Your task to perform on an android device: Is it going to rain this weekend? Image 0: 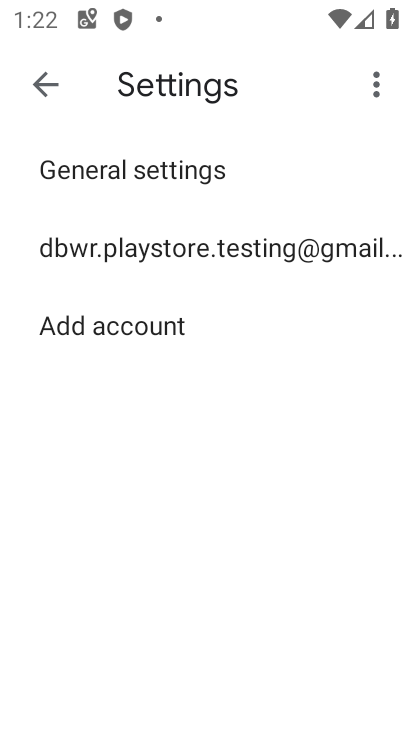
Step 0: press home button
Your task to perform on an android device: Is it going to rain this weekend? Image 1: 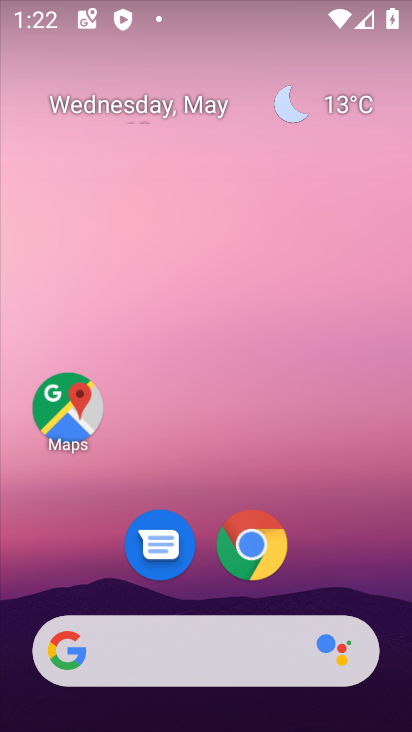
Step 1: click (330, 103)
Your task to perform on an android device: Is it going to rain this weekend? Image 2: 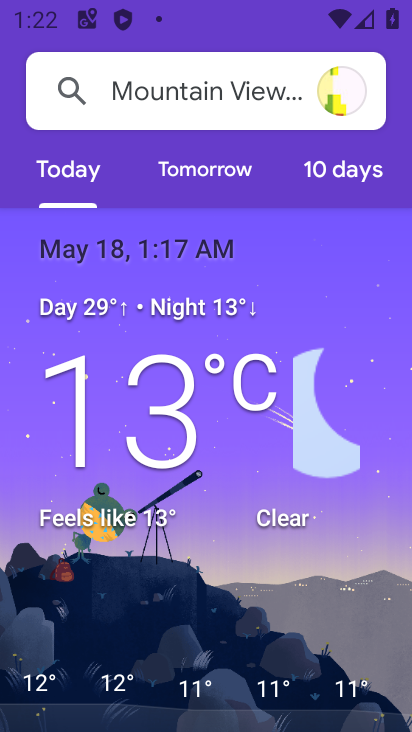
Step 2: click (317, 162)
Your task to perform on an android device: Is it going to rain this weekend? Image 3: 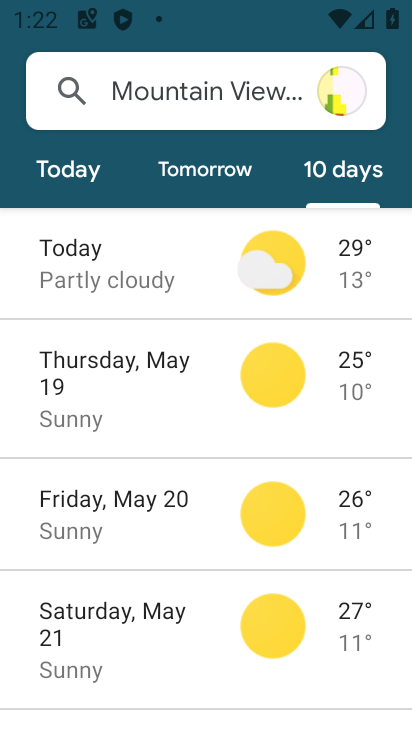
Step 3: task complete